Your task to perform on an android device: change the upload size in google photos Image 0: 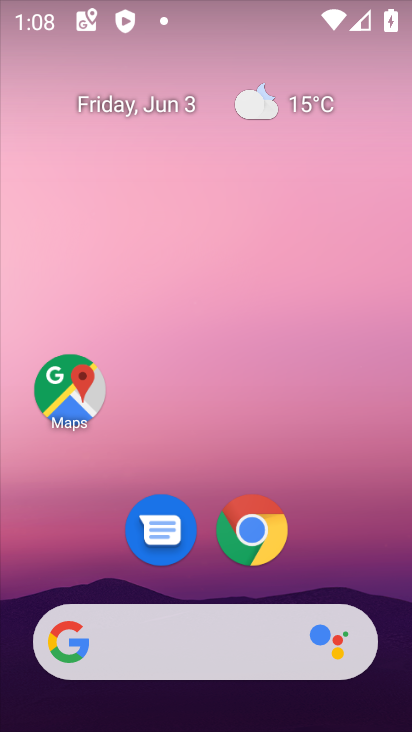
Step 0: drag from (375, 572) to (378, 134)
Your task to perform on an android device: change the upload size in google photos Image 1: 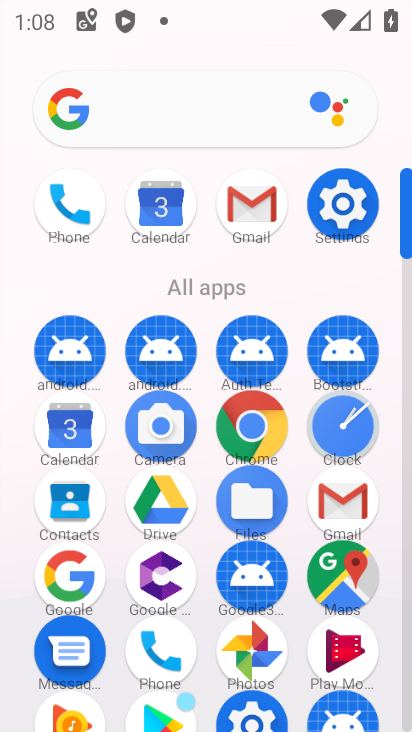
Step 1: click (253, 656)
Your task to perform on an android device: change the upload size in google photos Image 2: 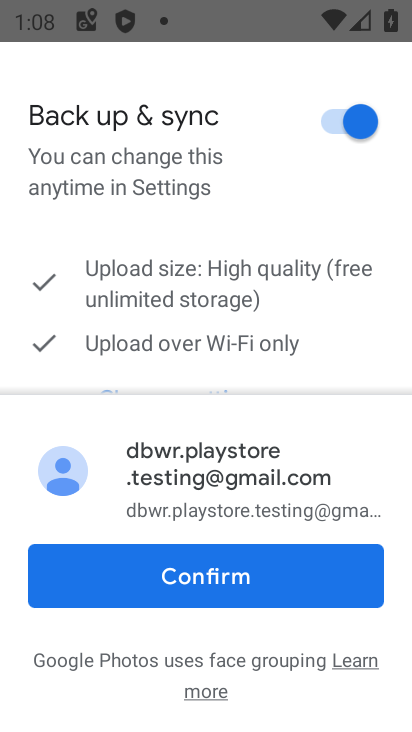
Step 2: click (246, 581)
Your task to perform on an android device: change the upload size in google photos Image 3: 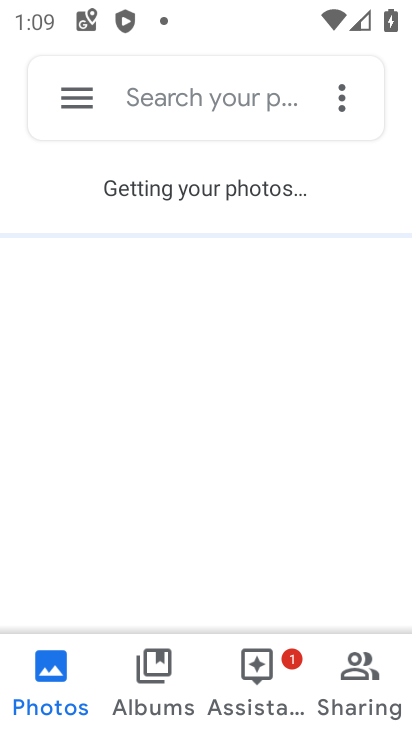
Step 3: click (84, 98)
Your task to perform on an android device: change the upload size in google photos Image 4: 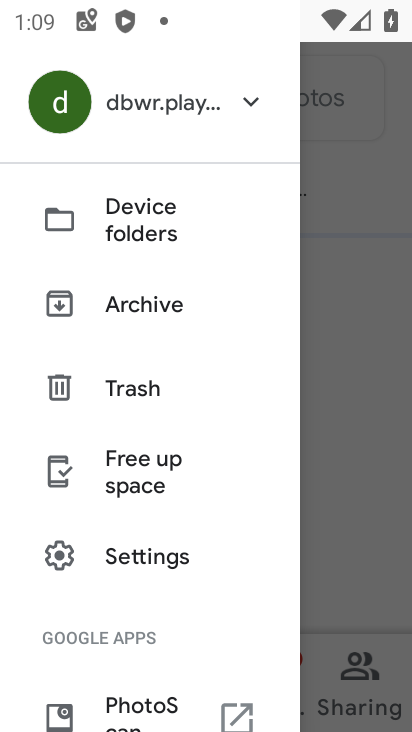
Step 4: click (170, 560)
Your task to perform on an android device: change the upload size in google photos Image 5: 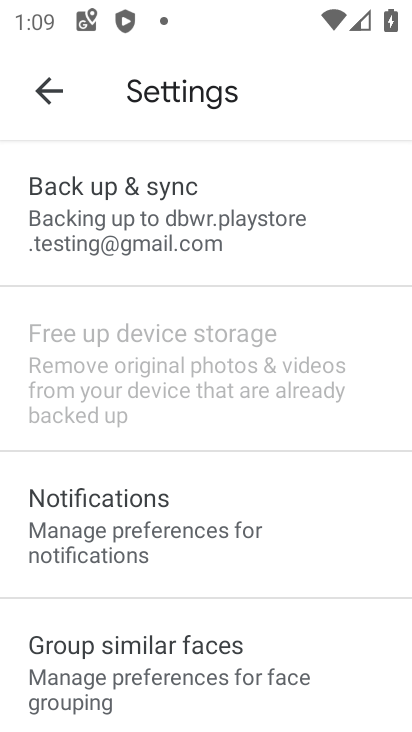
Step 5: click (264, 204)
Your task to perform on an android device: change the upload size in google photos Image 6: 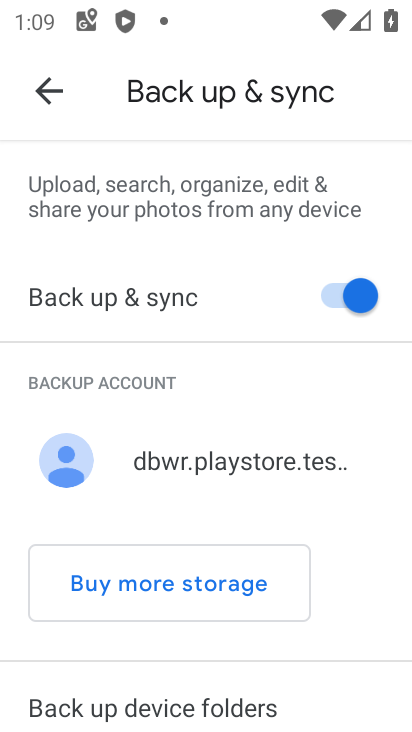
Step 6: drag from (365, 696) to (384, 384)
Your task to perform on an android device: change the upload size in google photos Image 7: 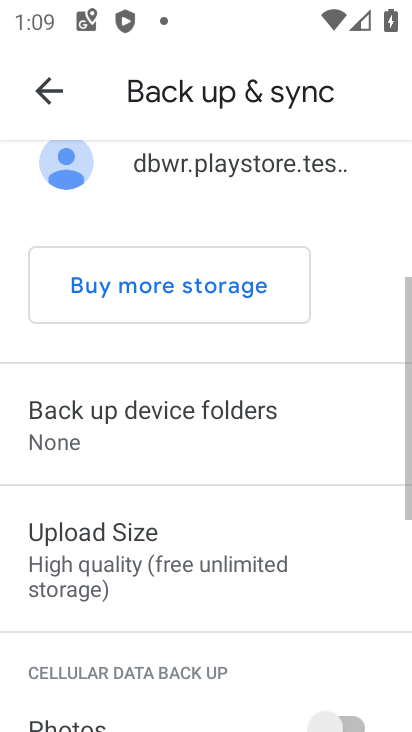
Step 7: click (264, 608)
Your task to perform on an android device: change the upload size in google photos Image 8: 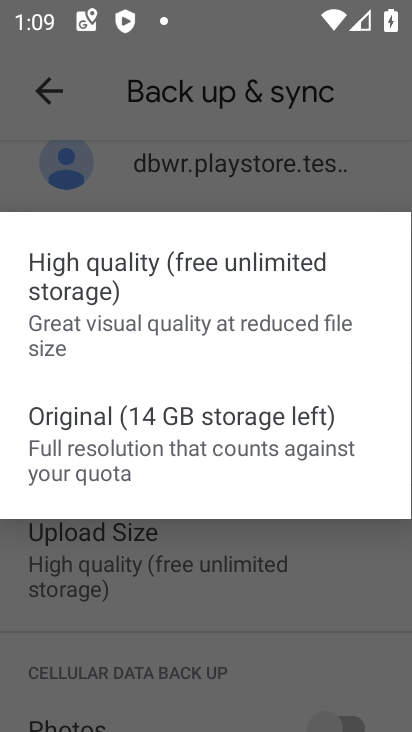
Step 8: click (165, 410)
Your task to perform on an android device: change the upload size in google photos Image 9: 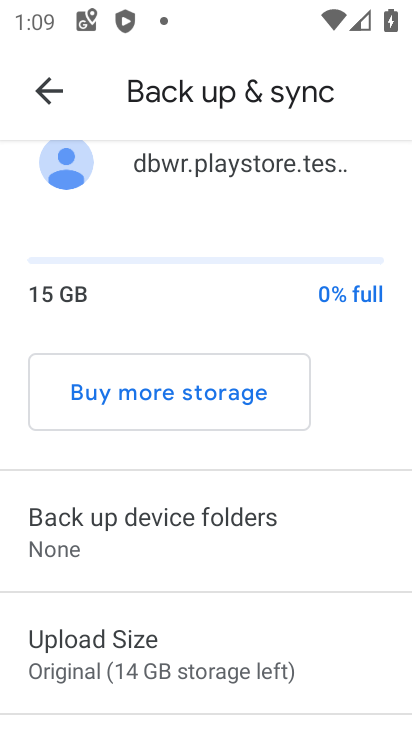
Step 9: task complete